Your task to perform on an android device: turn on sleep mode Image 0: 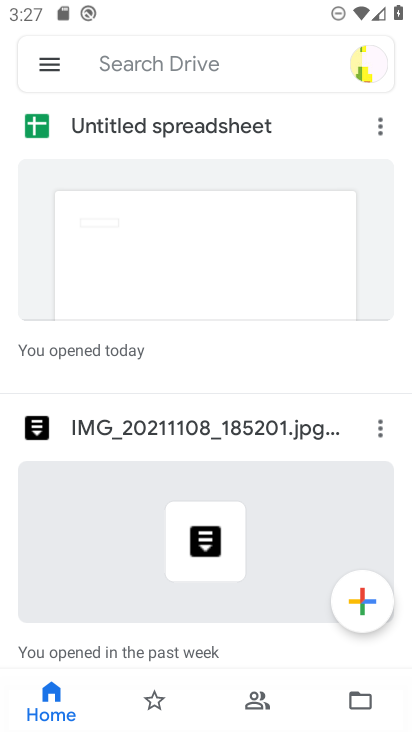
Step 0: press home button
Your task to perform on an android device: turn on sleep mode Image 1: 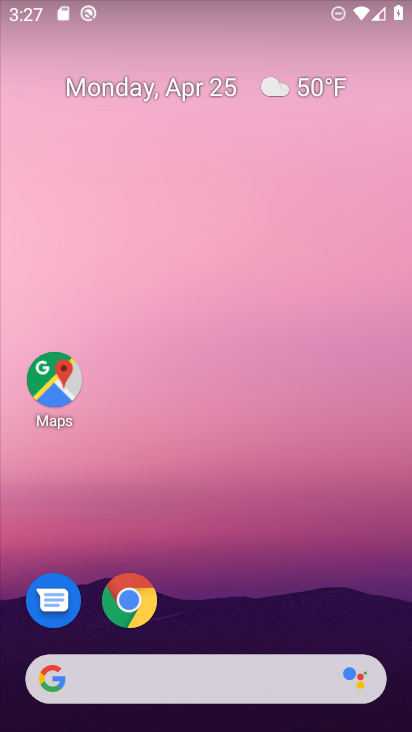
Step 1: drag from (227, 641) to (242, 32)
Your task to perform on an android device: turn on sleep mode Image 2: 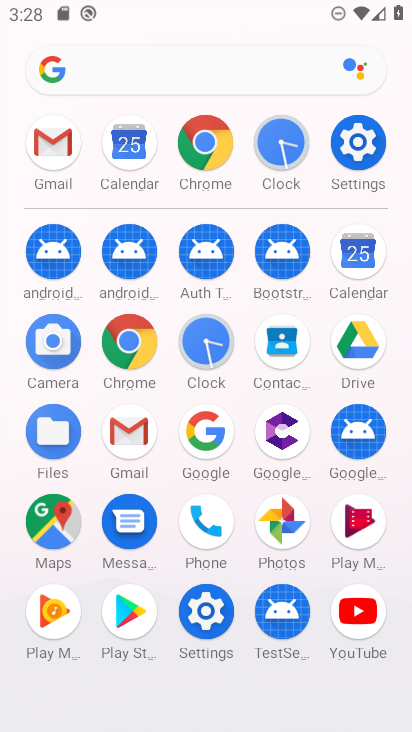
Step 2: click (206, 609)
Your task to perform on an android device: turn on sleep mode Image 3: 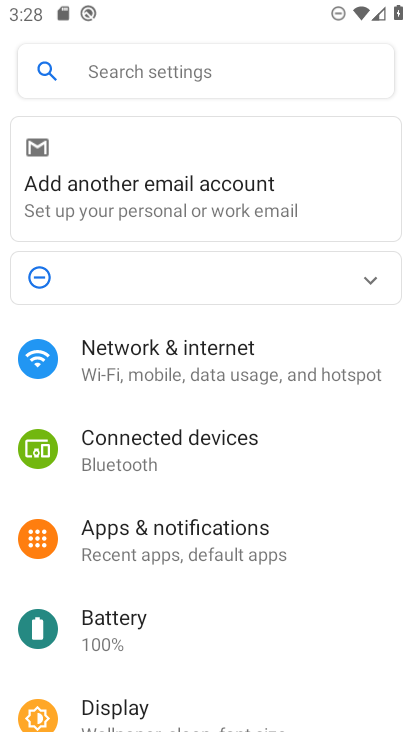
Step 3: drag from (212, 605) to (212, 154)
Your task to perform on an android device: turn on sleep mode Image 4: 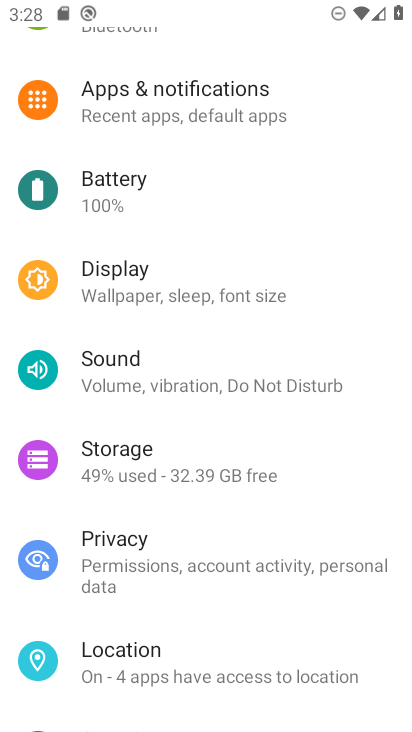
Step 4: drag from (190, 554) to (175, 71)
Your task to perform on an android device: turn on sleep mode Image 5: 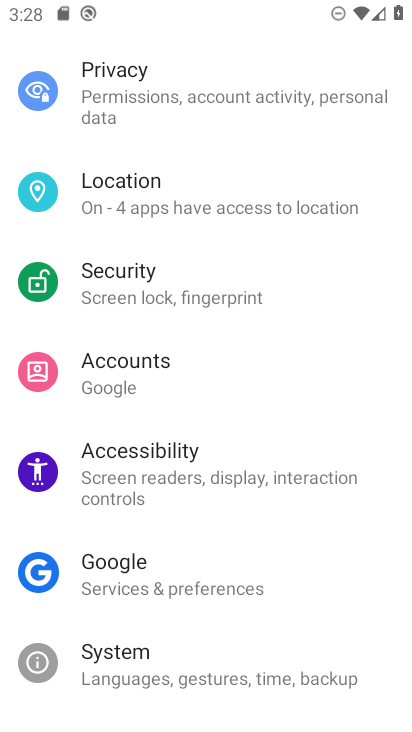
Step 5: drag from (157, 114) to (159, 422)
Your task to perform on an android device: turn on sleep mode Image 6: 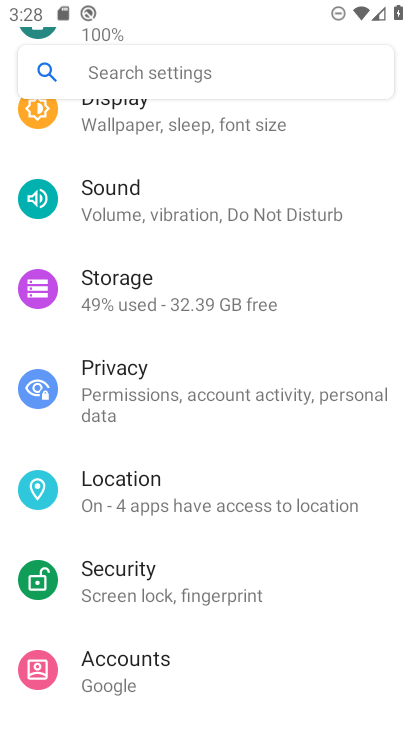
Step 6: click (143, 130)
Your task to perform on an android device: turn on sleep mode Image 7: 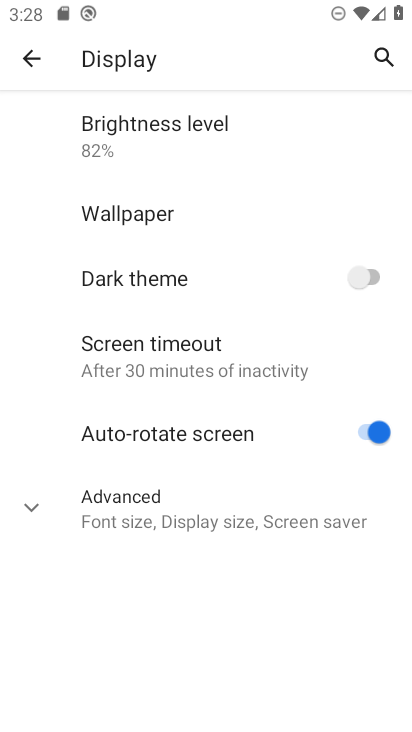
Step 7: task complete